Your task to perform on an android device: Go to eBay Image 0: 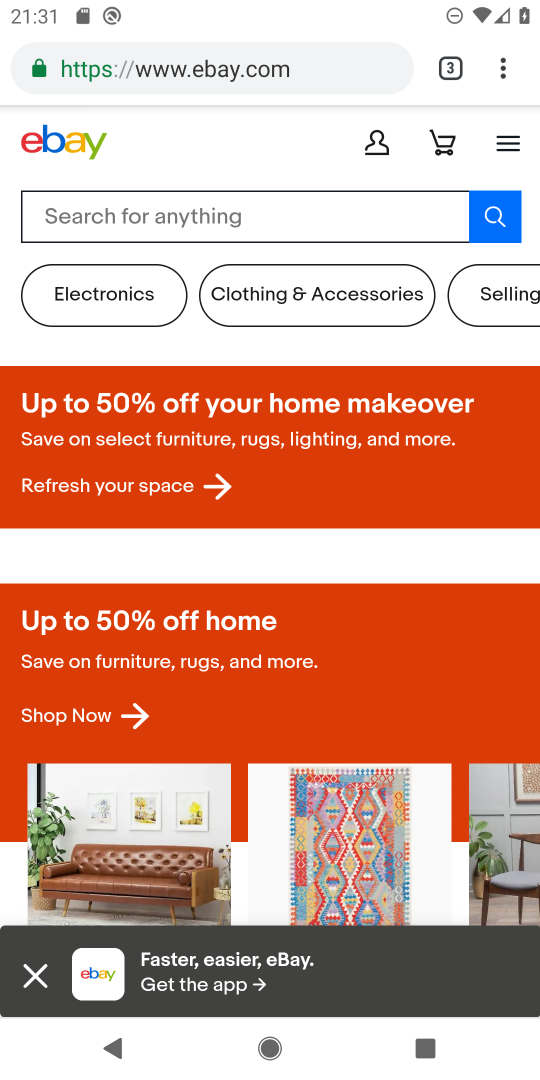
Step 0: drag from (239, 824) to (181, 463)
Your task to perform on an android device: Go to eBay Image 1: 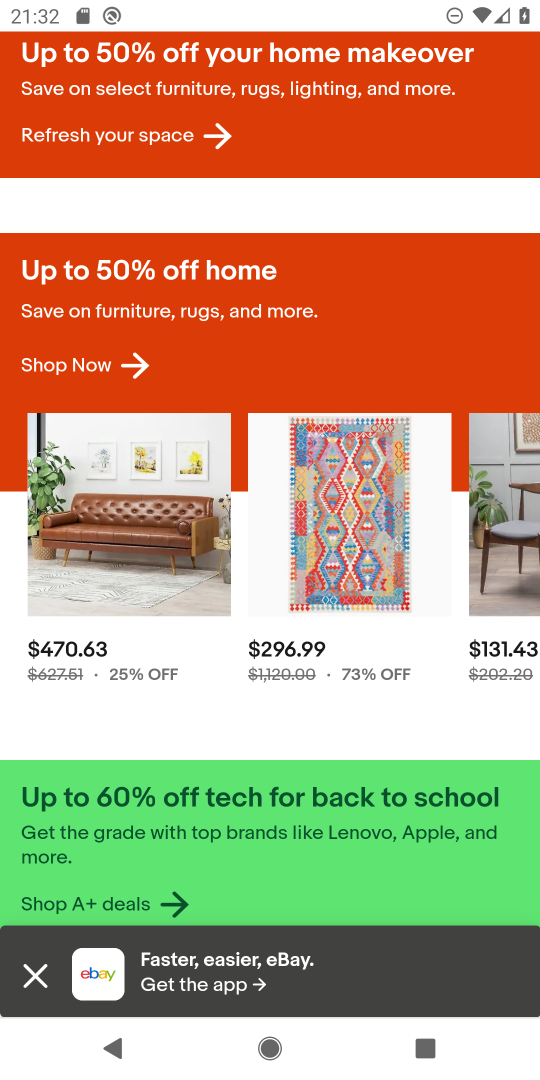
Step 1: task complete